Your task to perform on an android device: turn off data saver in the chrome app Image 0: 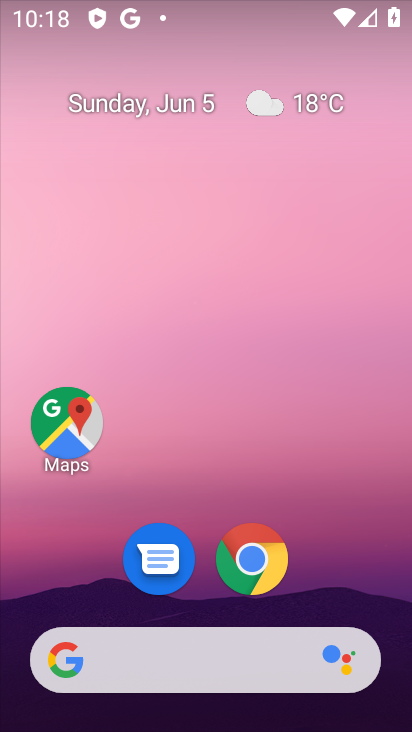
Step 0: click (264, 564)
Your task to perform on an android device: turn off data saver in the chrome app Image 1: 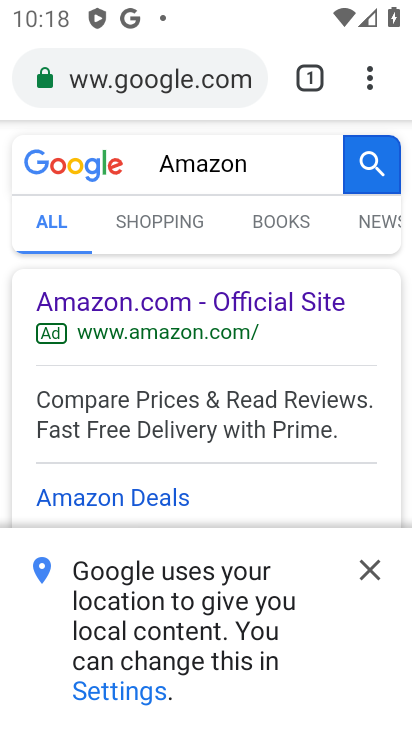
Step 1: click (372, 68)
Your task to perform on an android device: turn off data saver in the chrome app Image 2: 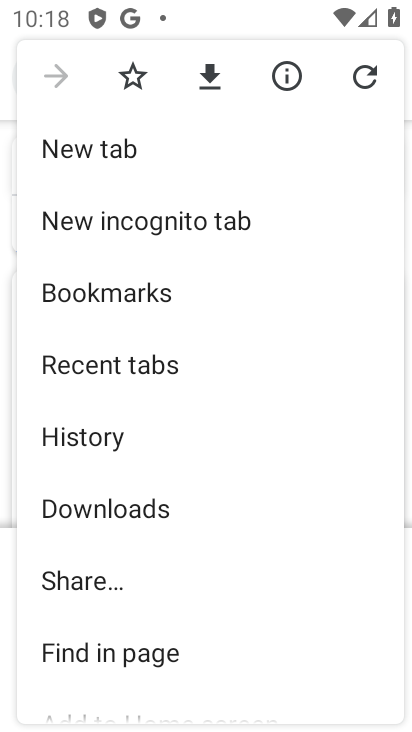
Step 2: drag from (270, 645) to (304, 274)
Your task to perform on an android device: turn off data saver in the chrome app Image 3: 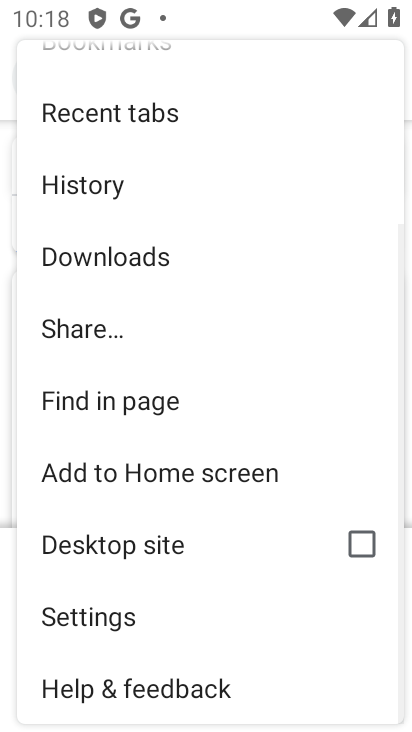
Step 3: drag from (262, 633) to (258, 310)
Your task to perform on an android device: turn off data saver in the chrome app Image 4: 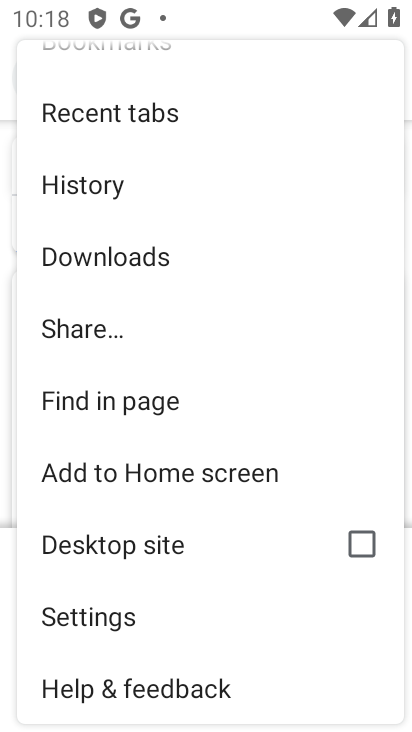
Step 4: click (72, 619)
Your task to perform on an android device: turn off data saver in the chrome app Image 5: 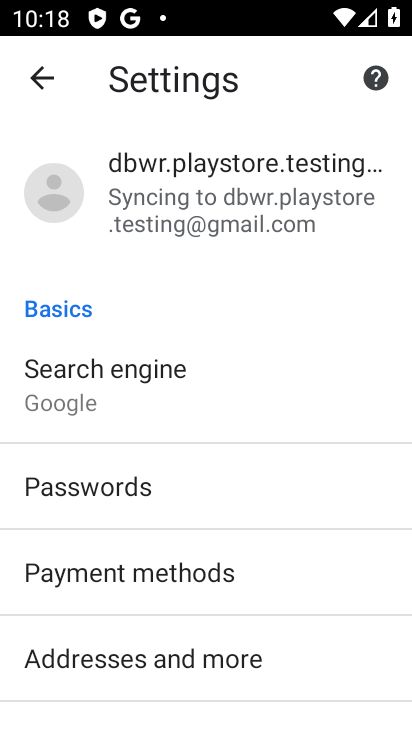
Step 5: drag from (307, 469) to (311, 237)
Your task to perform on an android device: turn off data saver in the chrome app Image 6: 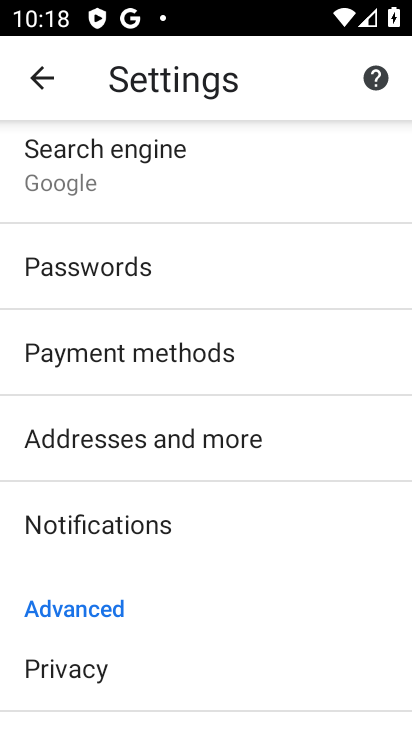
Step 6: drag from (253, 676) to (250, 294)
Your task to perform on an android device: turn off data saver in the chrome app Image 7: 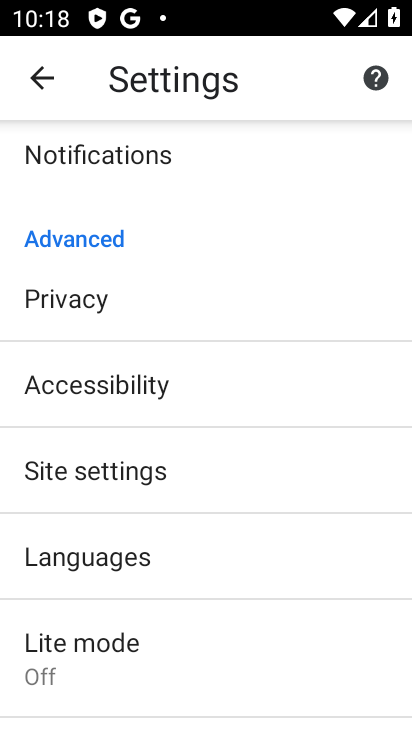
Step 7: click (126, 657)
Your task to perform on an android device: turn off data saver in the chrome app Image 8: 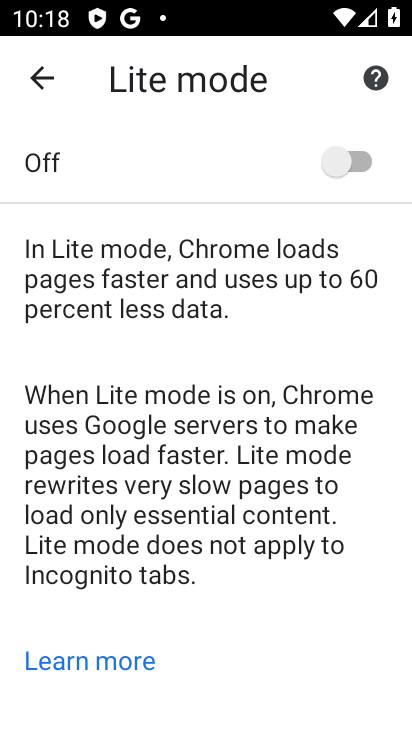
Step 8: task complete